Your task to perform on an android device: turn on wifi Image 0: 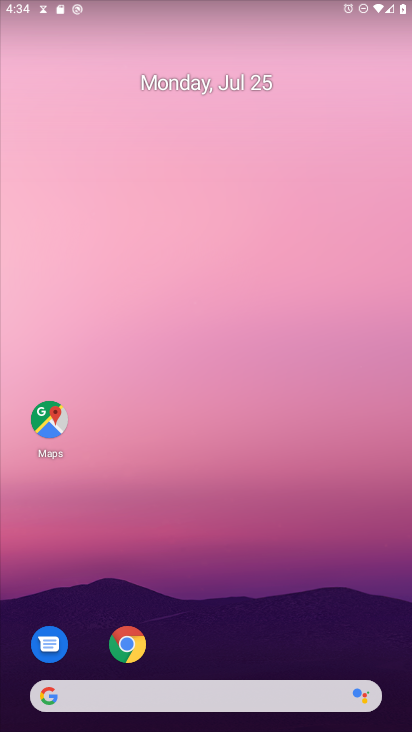
Step 0: press home button
Your task to perform on an android device: turn on wifi Image 1: 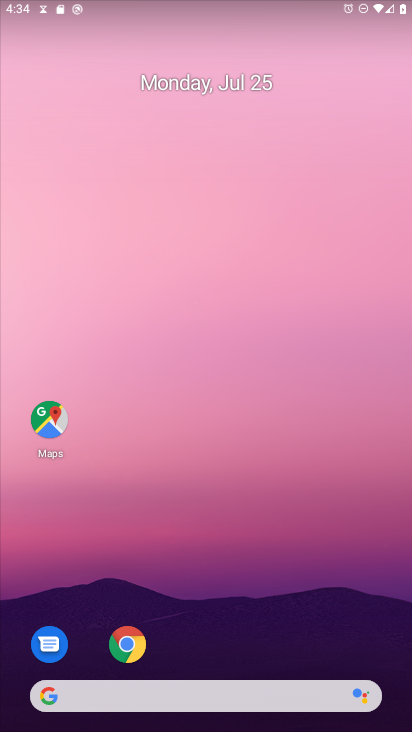
Step 1: drag from (235, 1) to (257, 283)
Your task to perform on an android device: turn on wifi Image 2: 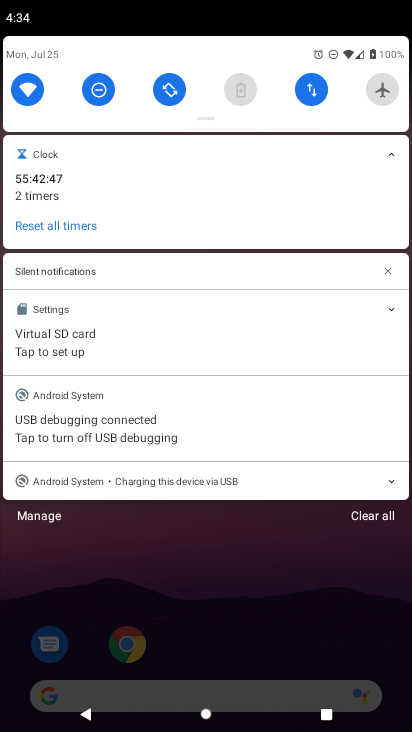
Step 2: click (27, 84)
Your task to perform on an android device: turn on wifi Image 3: 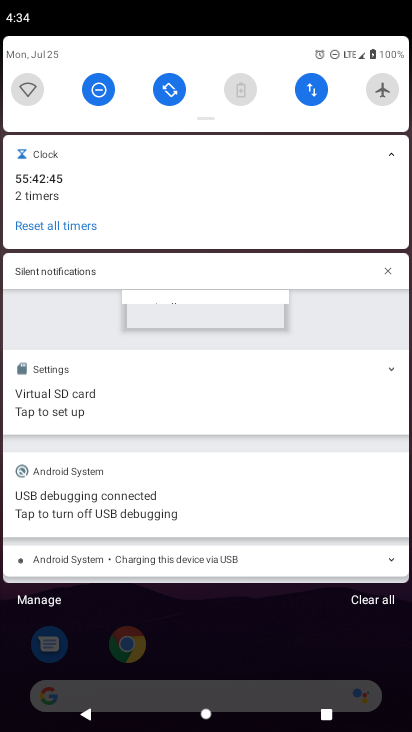
Step 3: task complete